Your task to perform on an android device: uninstall "Nova Launcher" Image 0: 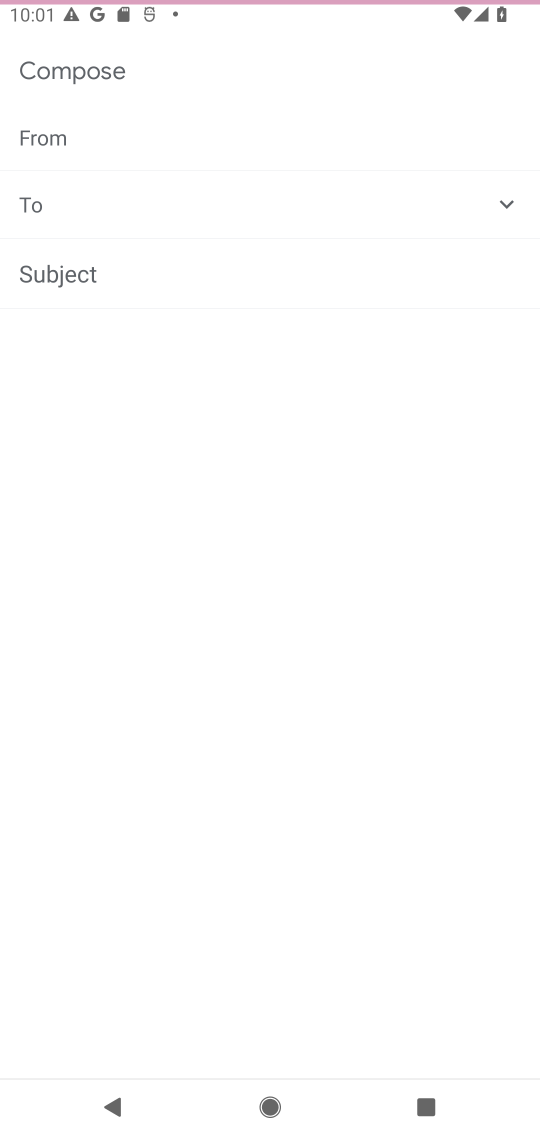
Step 0: press home button
Your task to perform on an android device: uninstall "Nova Launcher" Image 1: 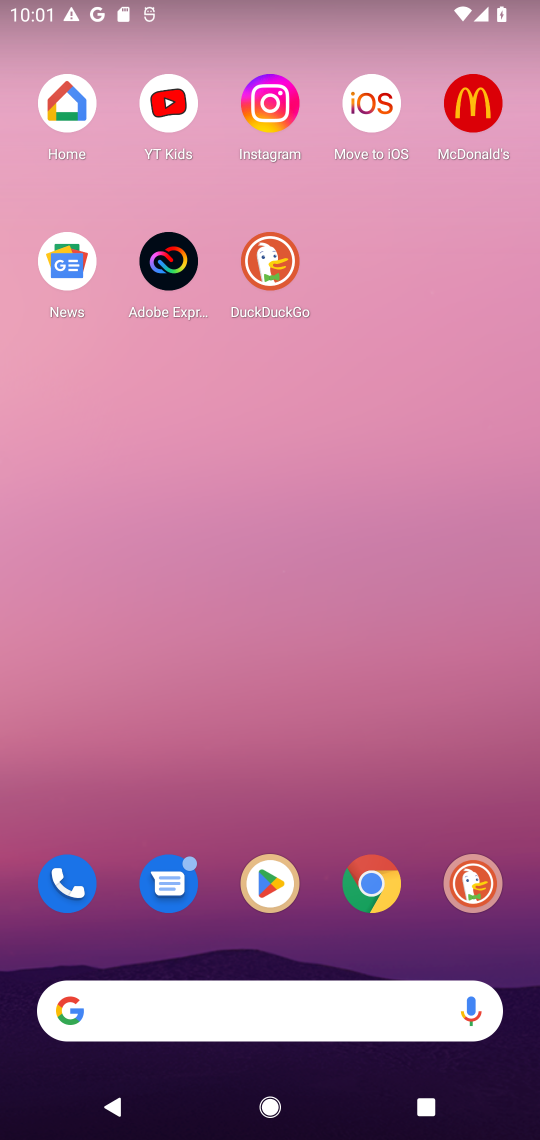
Step 1: drag from (396, 722) to (394, 137)
Your task to perform on an android device: uninstall "Nova Launcher" Image 2: 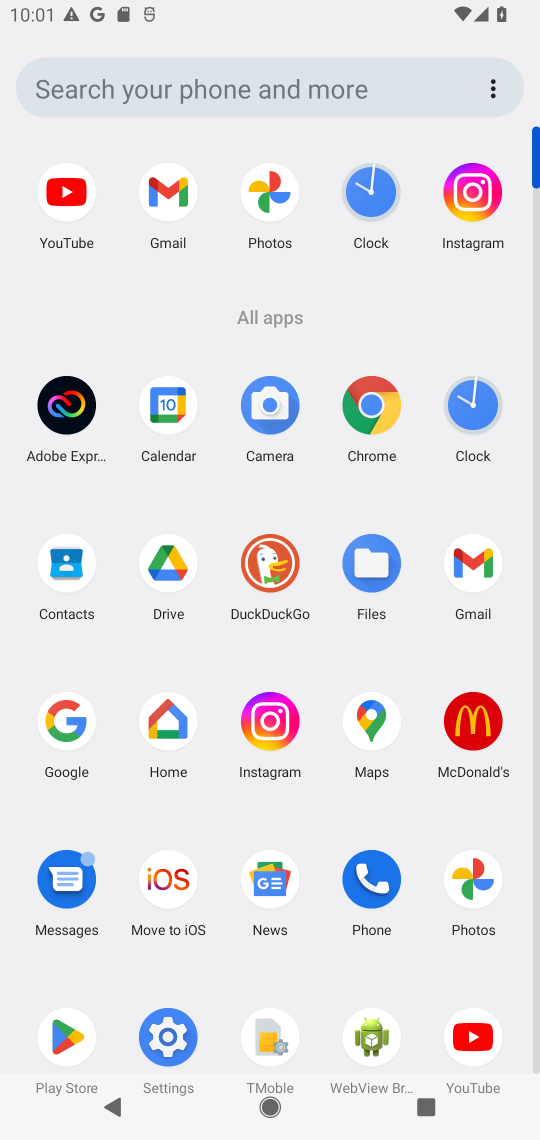
Step 2: click (64, 1028)
Your task to perform on an android device: uninstall "Nova Launcher" Image 3: 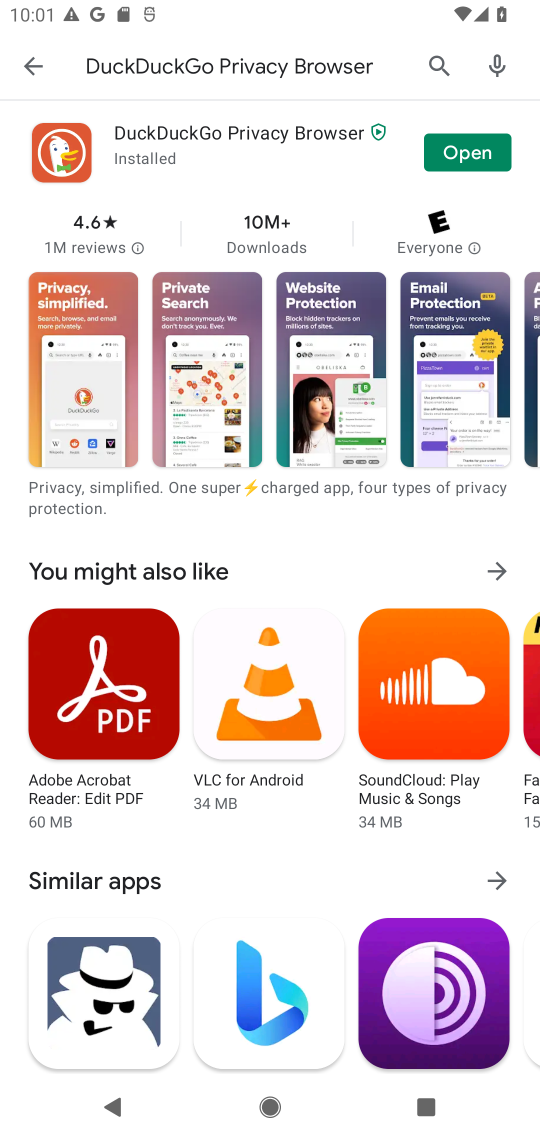
Step 3: click (441, 64)
Your task to perform on an android device: uninstall "Nova Launcher" Image 4: 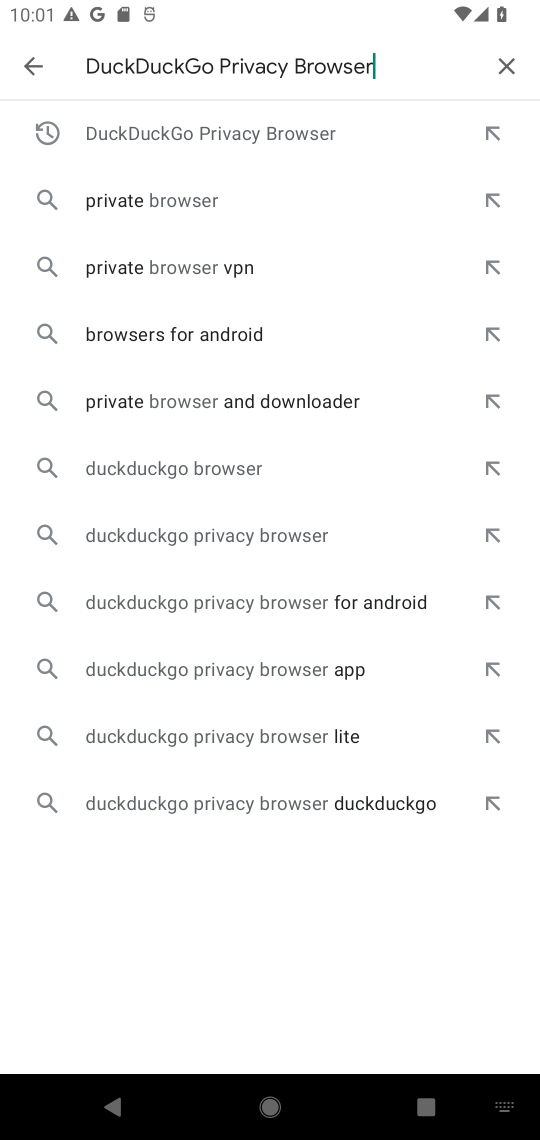
Step 4: click (499, 65)
Your task to perform on an android device: uninstall "Nova Launcher" Image 5: 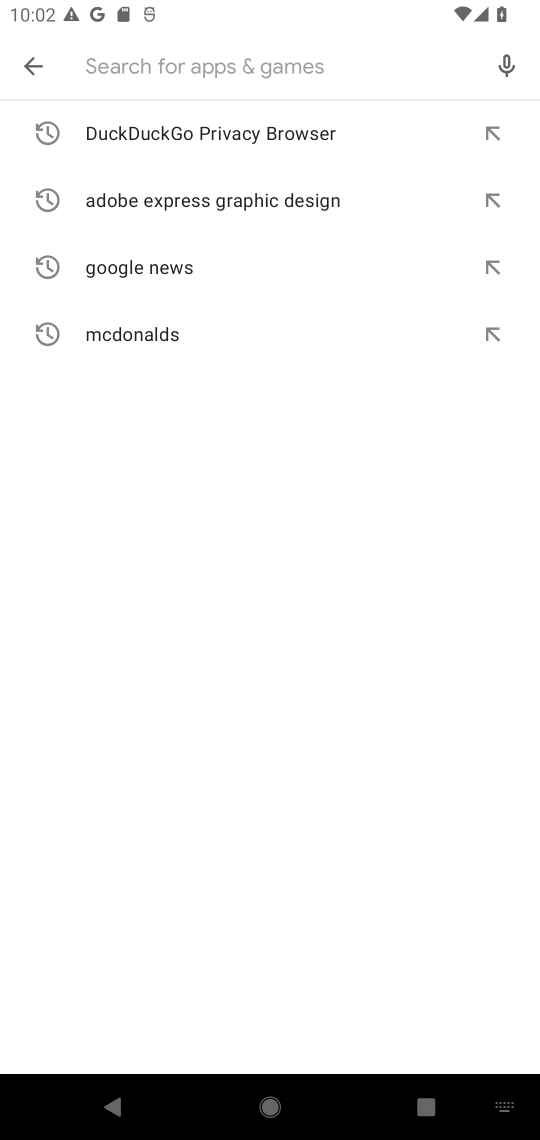
Step 5: press enter
Your task to perform on an android device: uninstall "Nova Launcher" Image 6: 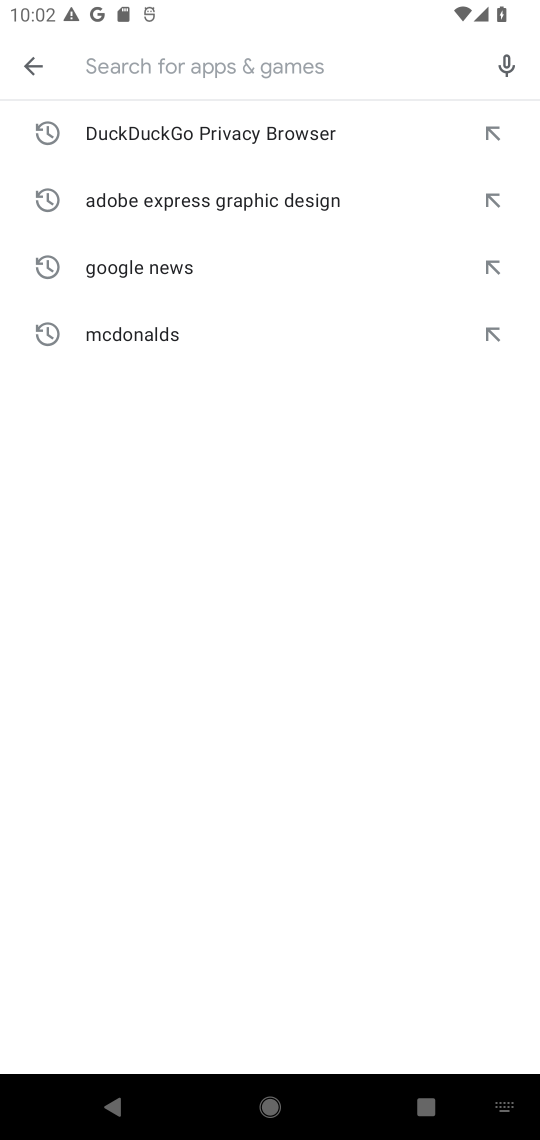
Step 6: type "nova launcher"
Your task to perform on an android device: uninstall "Nova Launcher" Image 7: 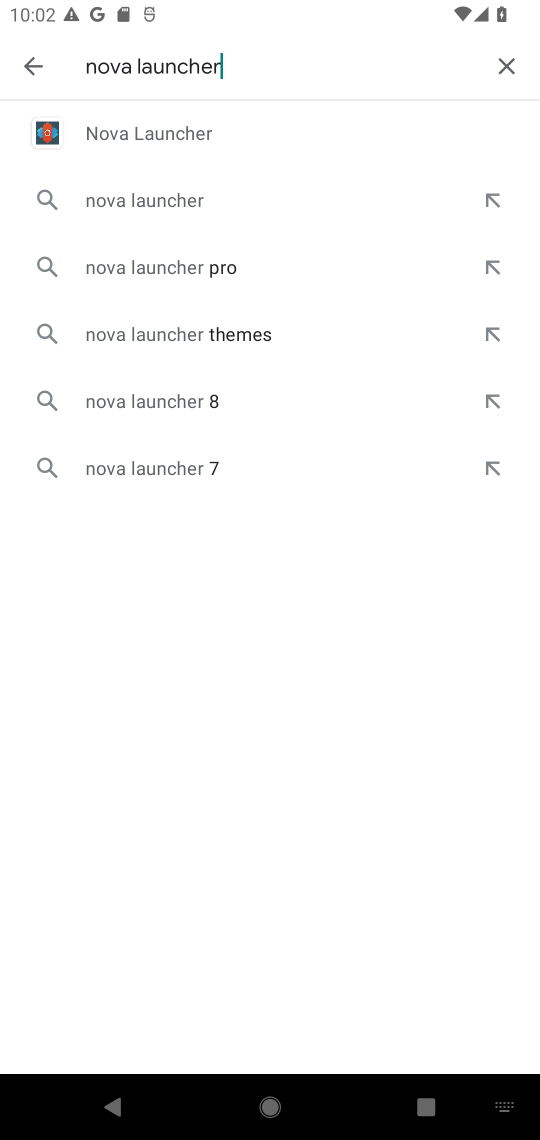
Step 7: click (206, 135)
Your task to perform on an android device: uninstall "Nova Launcher" Image 8: 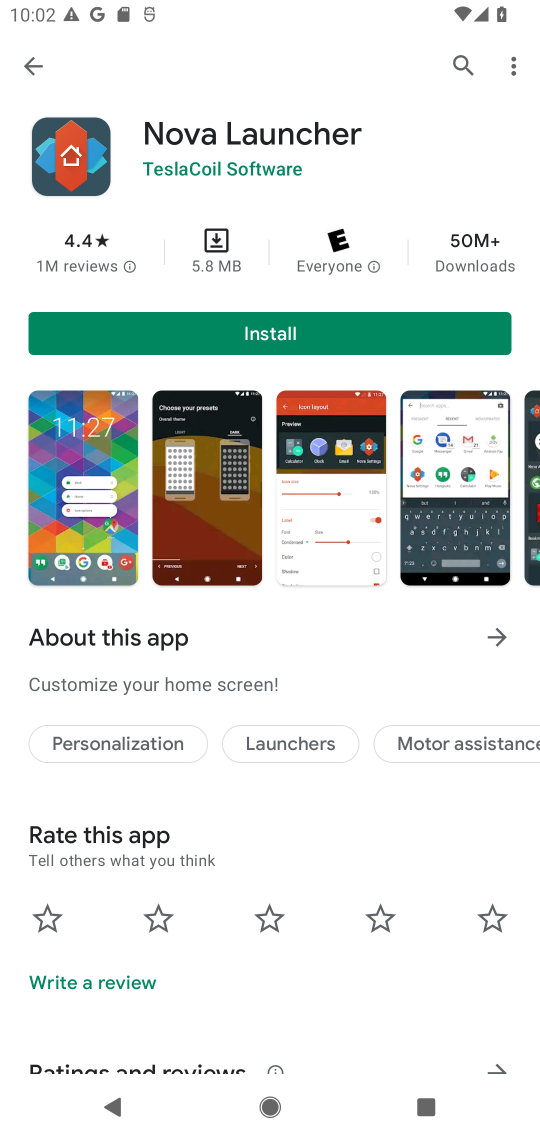
Step 8: task complete